Your task to perform on an android device: When is my next appointment? Image 0: 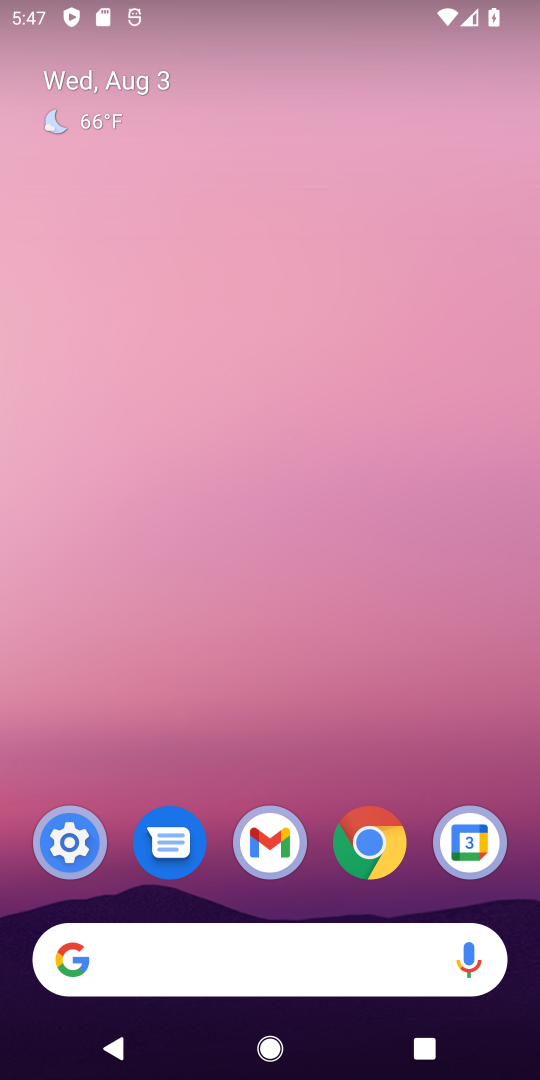
Step 0: drag from (365, 388) to (370, 52)
Your task to perform on an android device: When is my next appointment? Image 1: 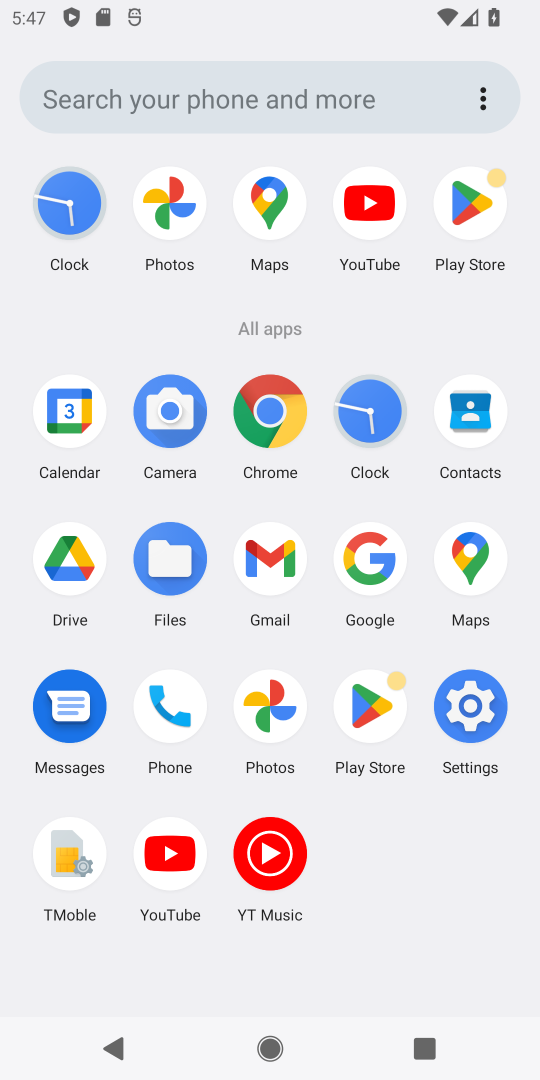
Step 1: click (49, 386)
Your task to perform on an android device: When is my next appointment? Image 2: 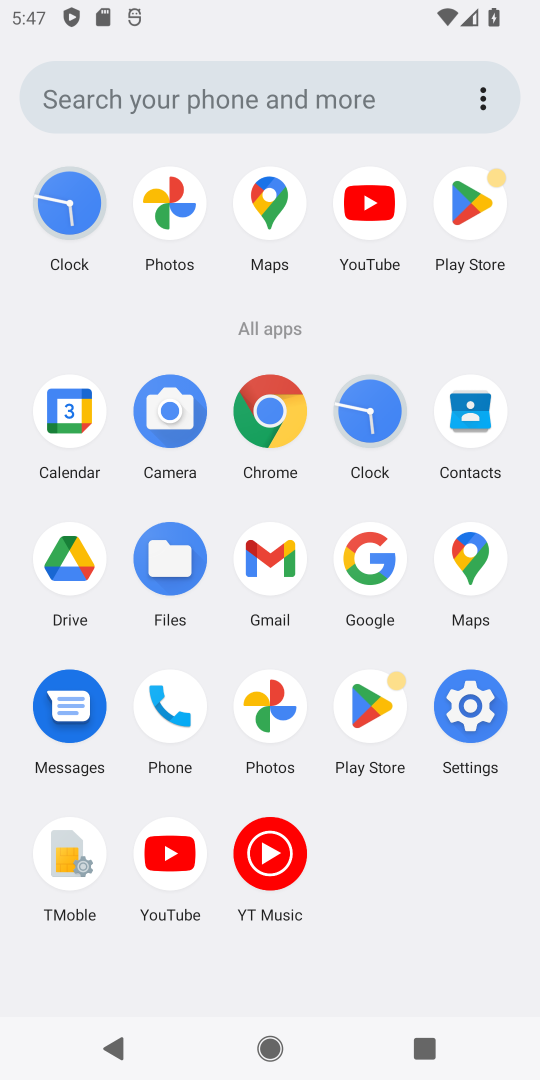
Step 2: click (49, 386)
Your task to perform on an android device: When is my next appointment? Image 3: 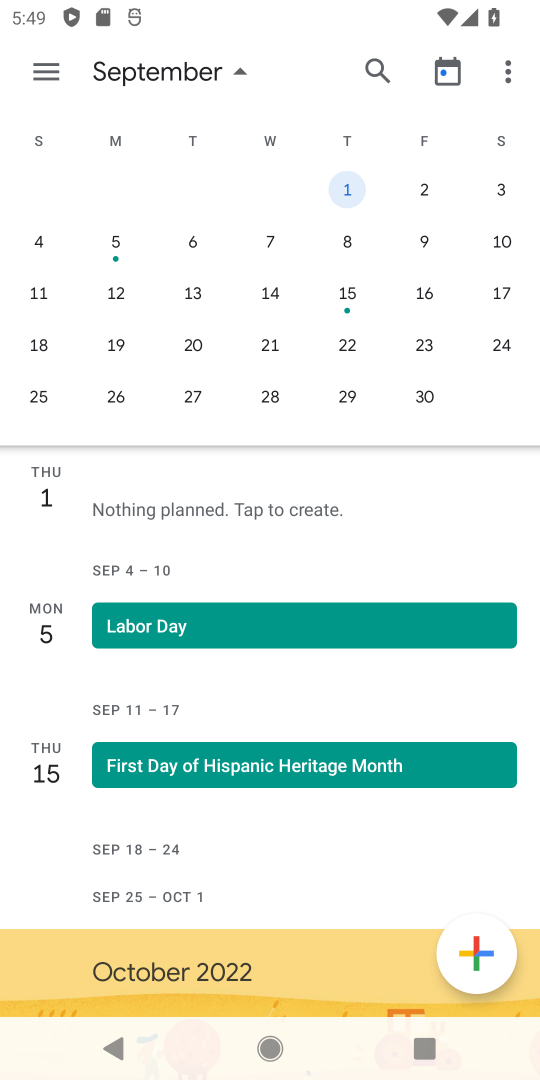
Step 3: click (61, 69)
Your task to perform on an android device: When is my next appointment? Image 4: 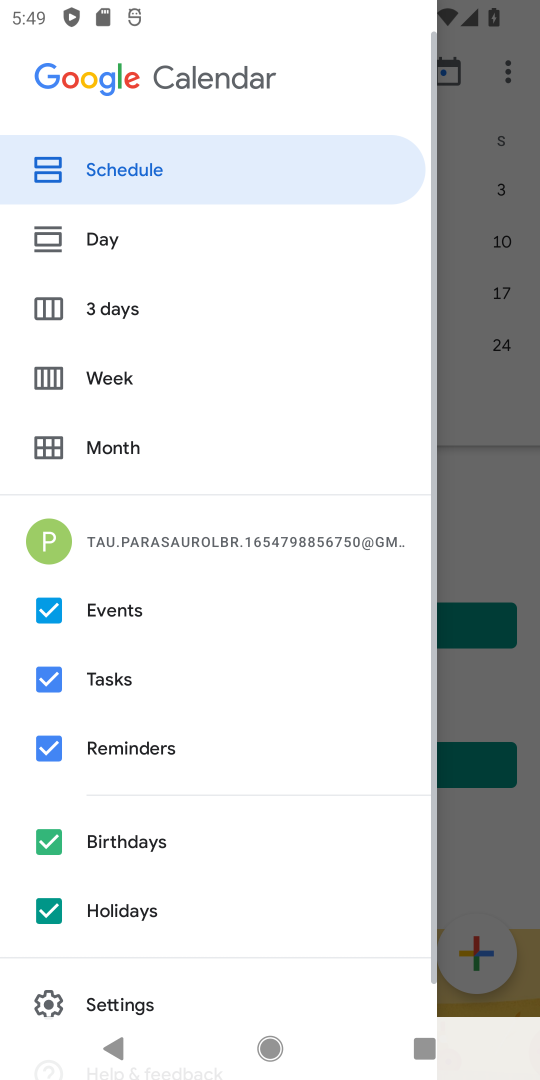
Step 4: click (176, 174)
Your task to perform on an android device: When is my next appointment? Image 5: 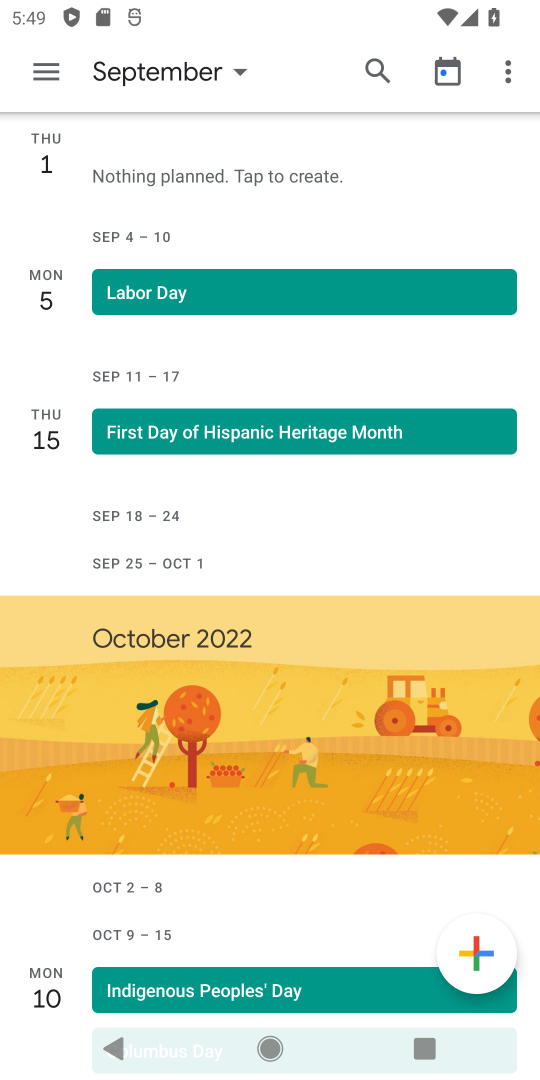
Step 5: task complete